Your task to perform on an android device: turn off notifications in google photos Image 0: 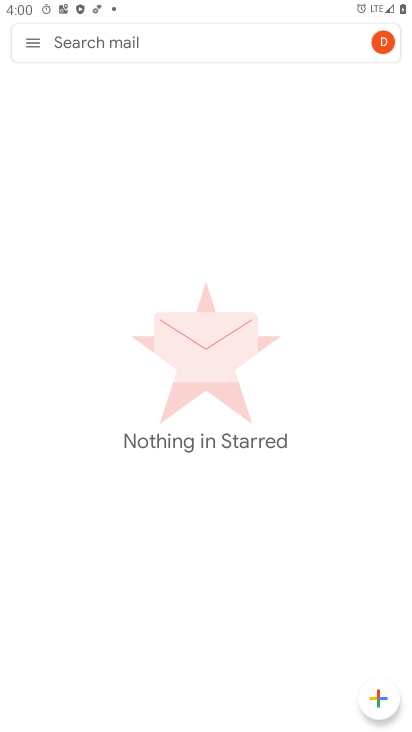
Step 0: press home button
Your task to perform on an android device: turn off notifications in google photos Image 1: 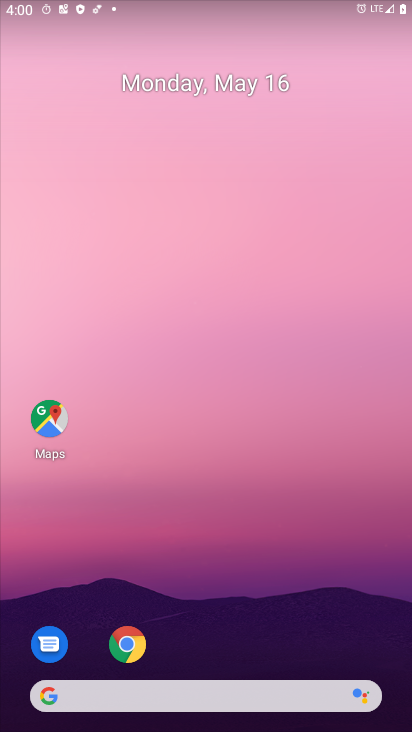
Step 1: drag from (209, 656) to (321, 35)
Your task to perform on an android device: turn off notifications in google photos Image 2: 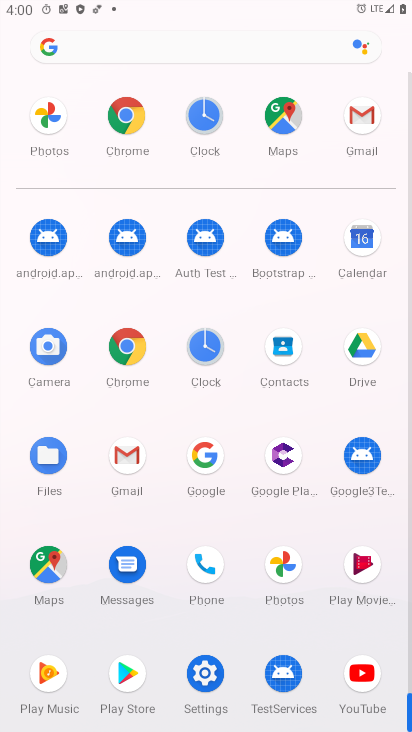
Step 2: click (283, 593)
Your task to perform on an android device: turn off notifications in google photos Image 3: 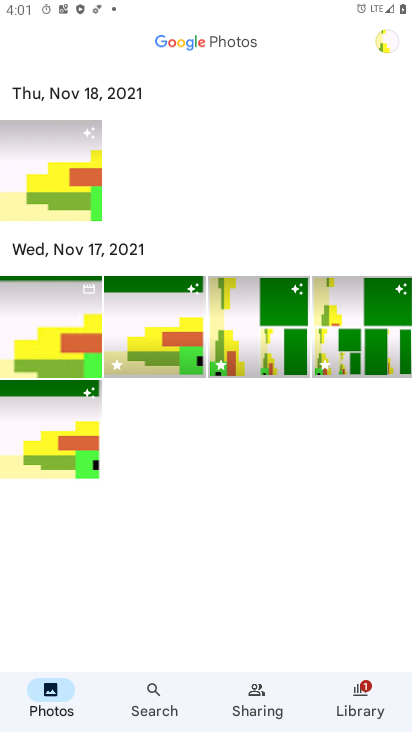
Step 3: click (379, 39)
Your task to perform on an android device: turn off notifications in google photos Image 4: 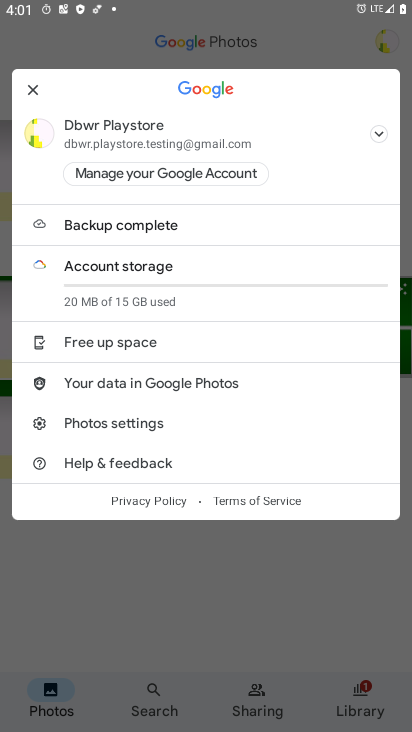
Step 4: click (134, 420)
Your task to perform on an android device: turn off notifications in google photos Image 5: 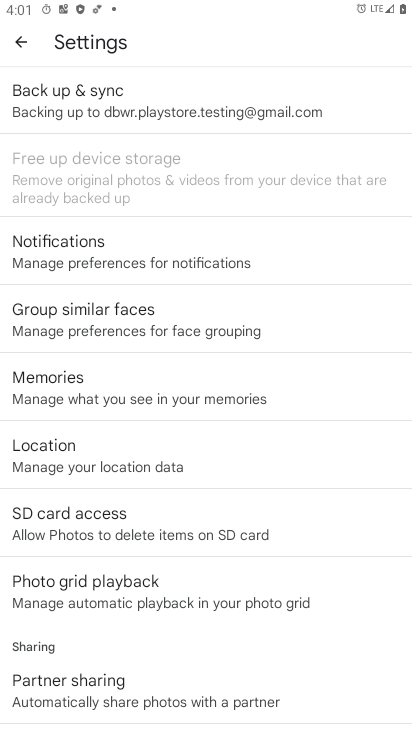
Step 5: click (190, 258)
Your task to perform on an android device: turn off notifications in google photos Image 6: 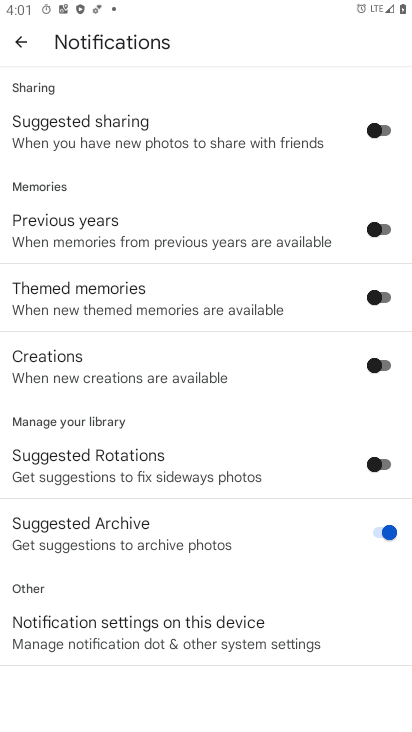
Step 6: click (245, 642)
Your task to perform on an android device: turn off notifications in google photos Image 7: 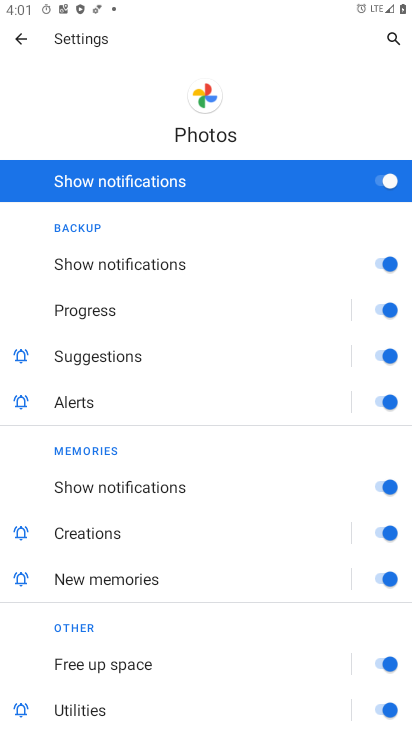
Step 7: click (379, 179)
Your task to perform on an android device: turn off notifications in google photos Image 8: 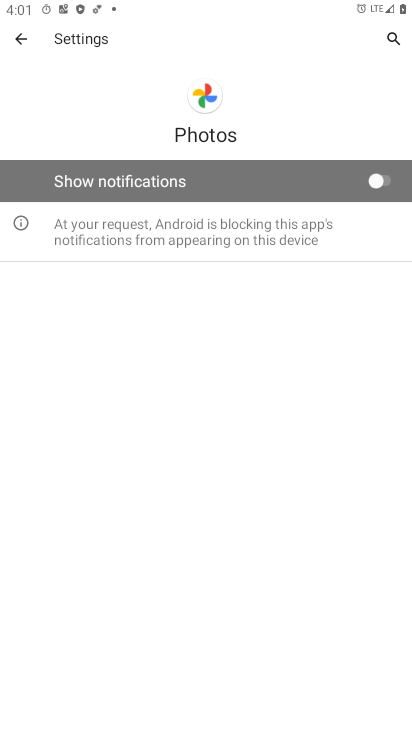
Step 8: task complete